Your task to perform on an android device: set an alarm Image 0: 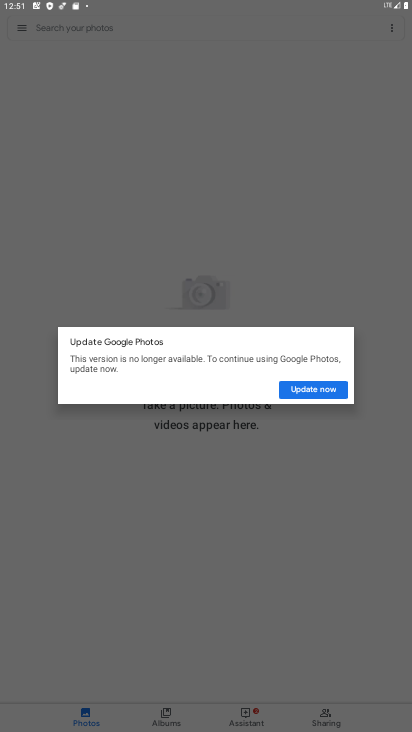
Step 0: press home button
Your task to perform on an android device: set an alarm Image 1: 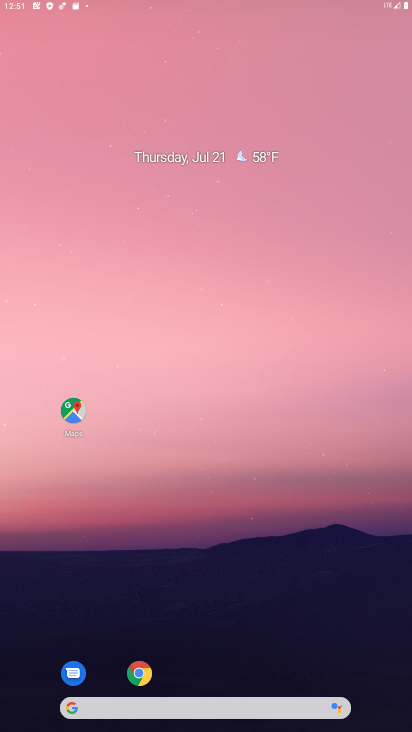
Step 1: drag from (171, 327) to (165, 278)
Your task to perform on an android device: set an alarm Image 2: 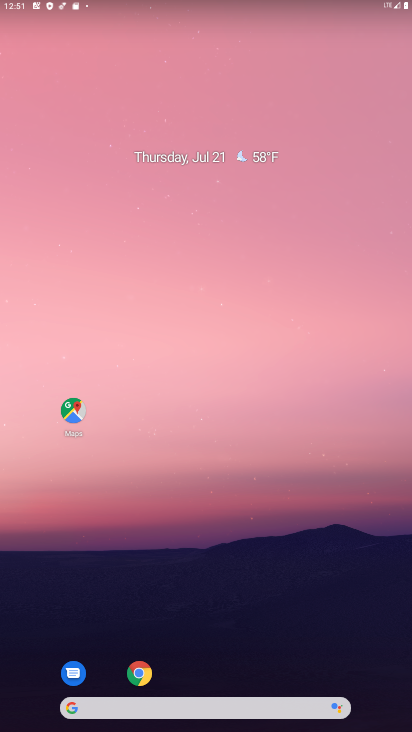
Step 2: drag from (171, 645) to (175, 173)
Your task to perform on an android device: set an alarm Image 3: 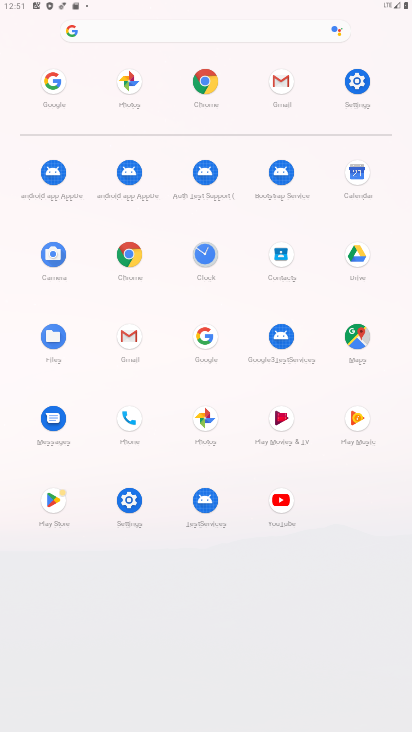
Step 3: click (201, 256)
Your task to perform on an android device: set an alarm Image 4: 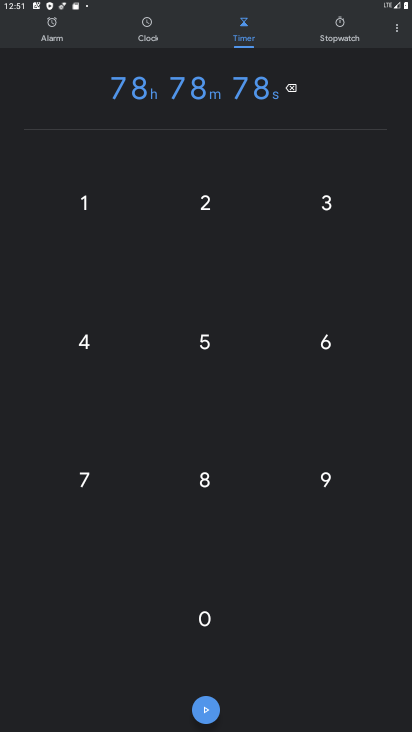
Step 4: click (58, 7)
Your task to perform on an android device: set an alarm Image 5: 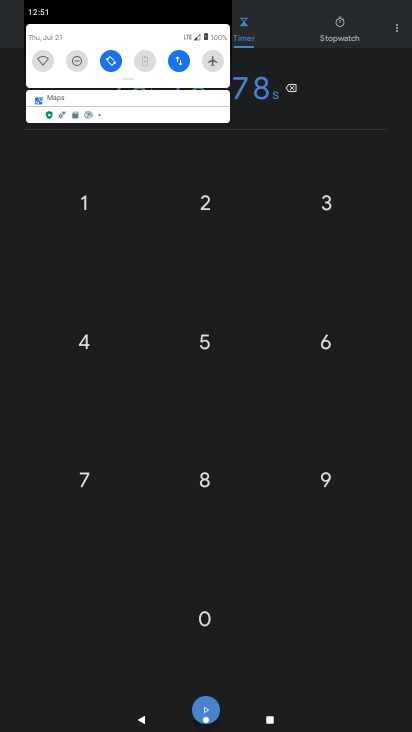
Step 5: click (58, 31)
Your task to perform on an android device: set an alarm Image 6: 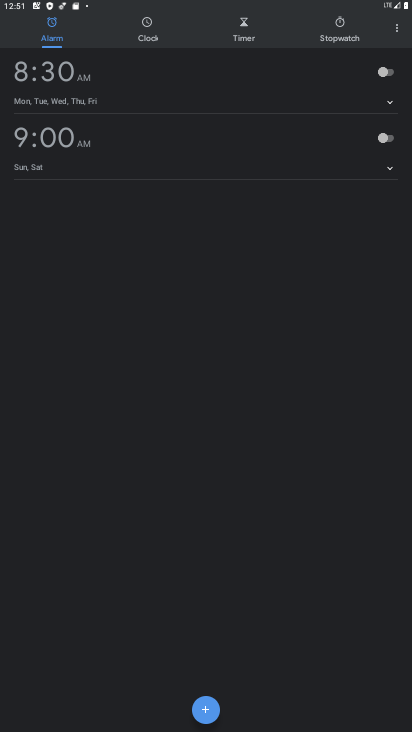
Step 6: click (390, 74)
Your task to perform on an android device: set an alarm Image 7: 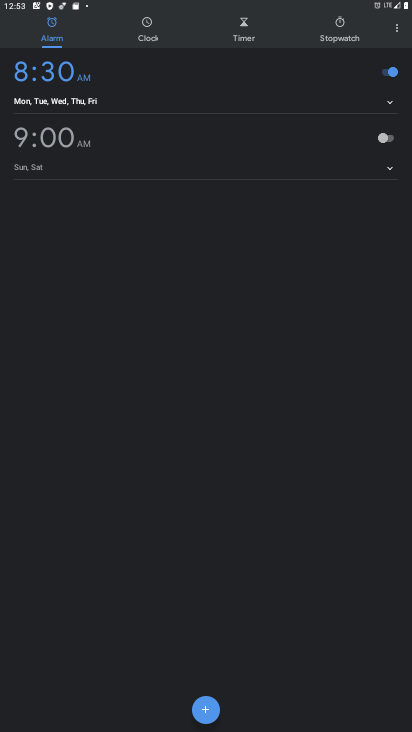
Step 7: task complete